Your task to perform on an android device: Open CNN.com Image 0: 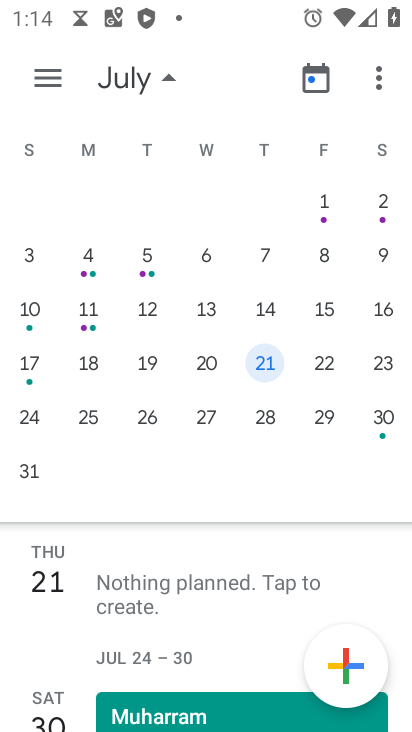
Step 0: press home button
Your task to perform on an android device: Open CNN.com Image 1: 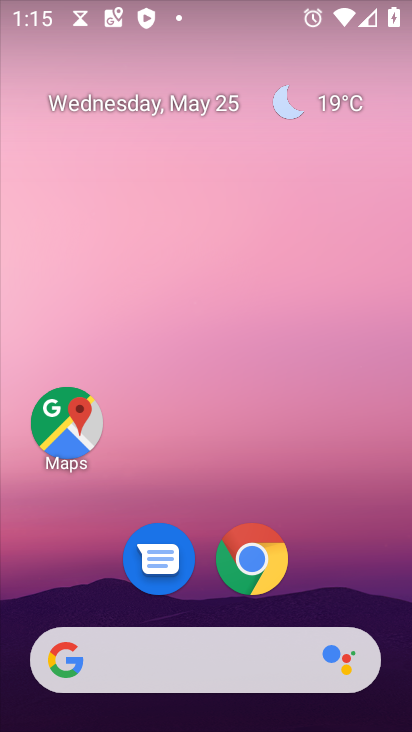
Step 1: click (234, 587)
Your task to perform on an android device: Open CNN.com Image 2: 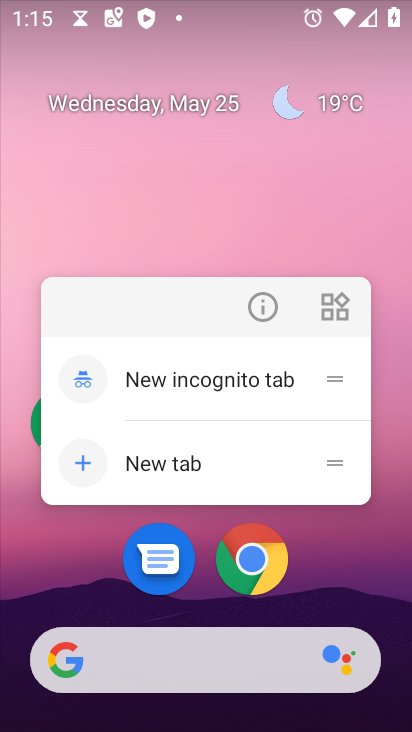
Step 2: click (246, 569)
Your task to perform on an android device: Open CNN.com Image 3: 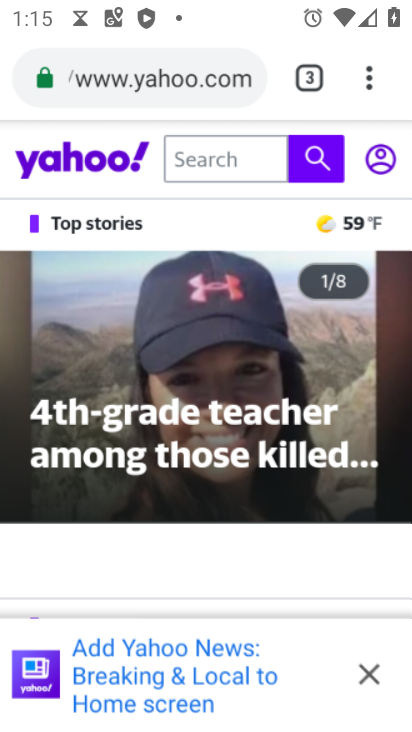
Step 3: click (188, 88)
Your task to perform on an android device: Open CNN.com Image 4: 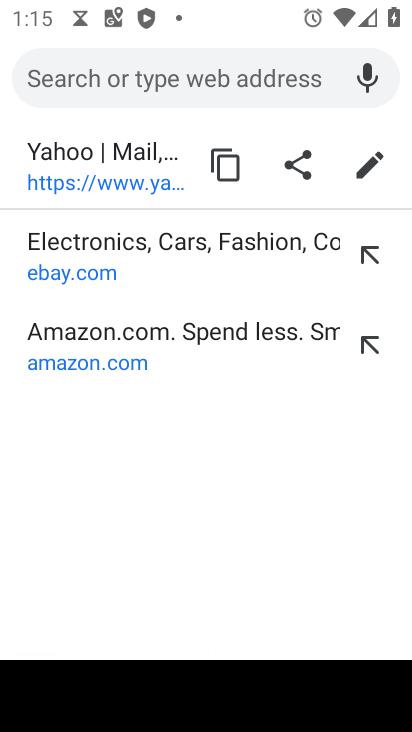
Step 4: type "cnn"
Your task to perform on an android device: Open CNN.com Image 5: 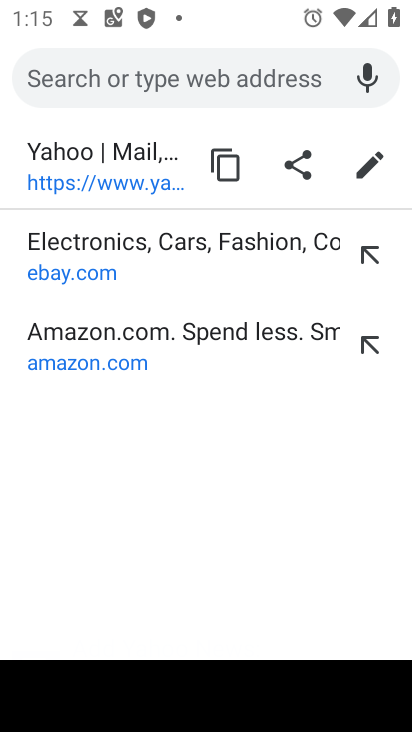
Step 5: click (295, 446)
Your task to perform on an android device: Open CNN.com Image 6: 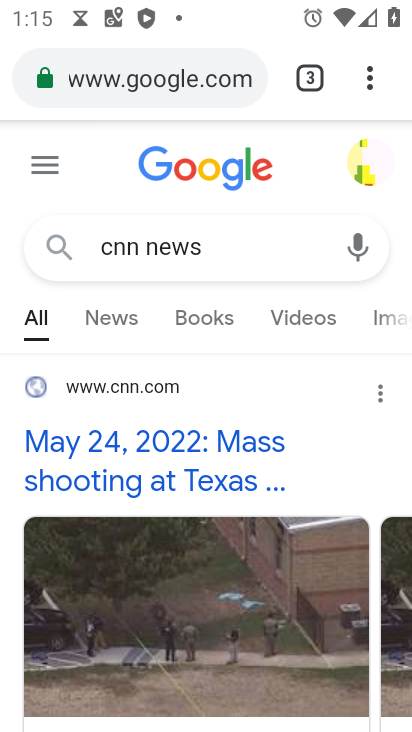
Step 6: drag from (287, 538) to (298, 140)
Your task to perform on an android device: Open CNN.com Image 7: 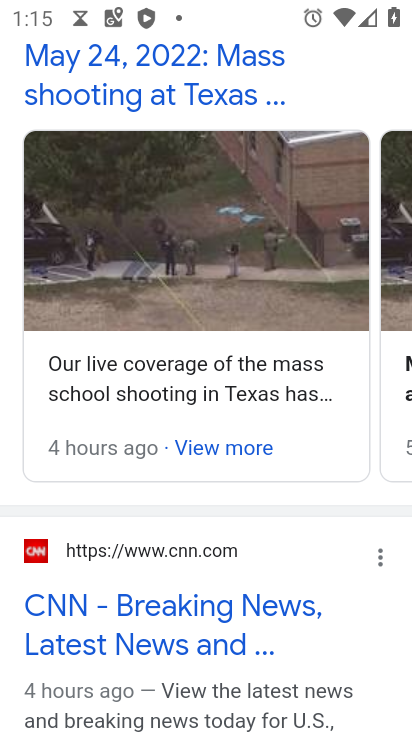
Step 7: drag from (254, 213) to (308, 682)
Your task to perform on an android device: Open CNN.com Image 8: 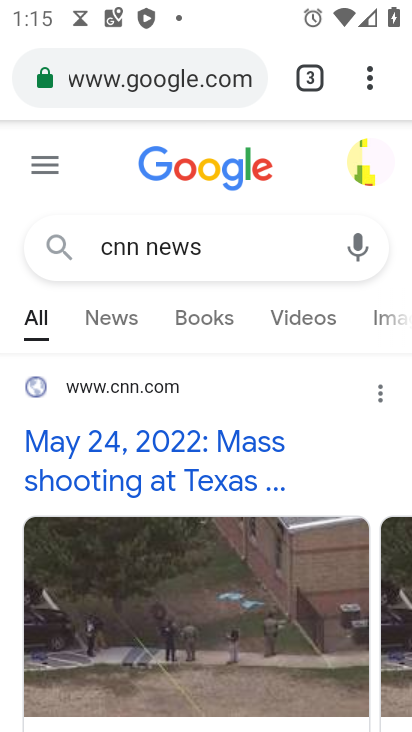
Step 8: click (131, 451)
Your task to perform on an android device: Open CNN.com Image 9: 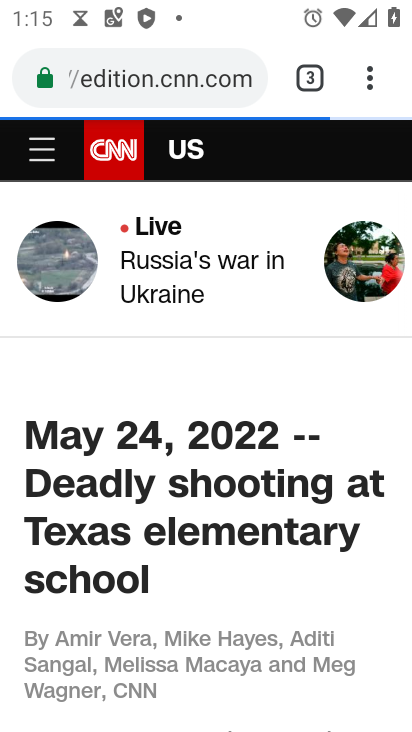
Step 9: task complete